Your task to perform on an android device: Open Google Chrome and open the bookmarks view Image 0: 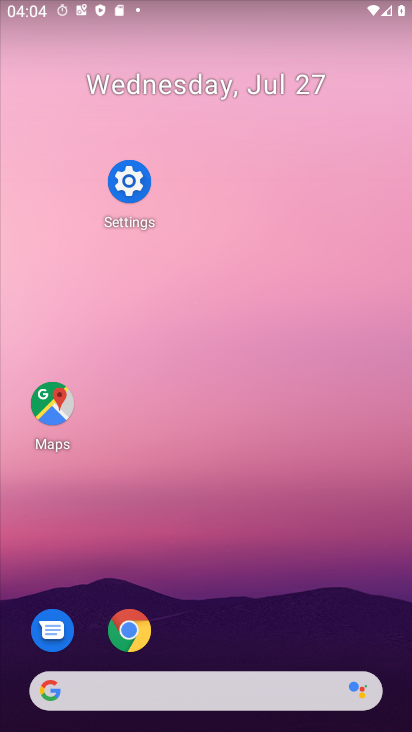
Step 0: drag from (172, 535) to (176, 116)
Your task to perform on an android device: Open Google Chrome and open the bookmarks view Image 1: 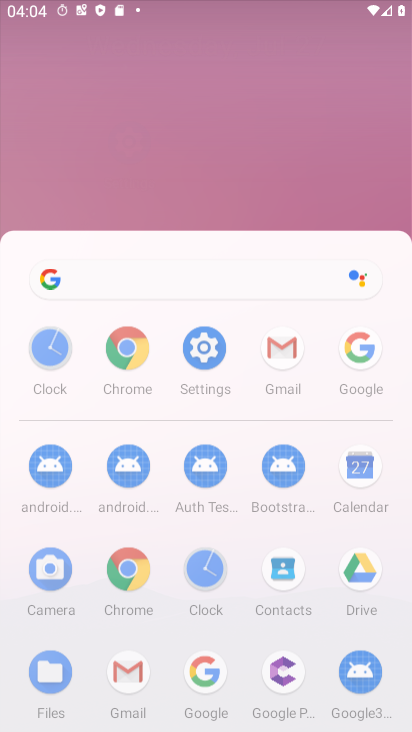
Step 1: drag from (204, 160) to (228, 135)
Your task to perform on an android device: Open Google Chrome and open the bookmarks view Image 2: 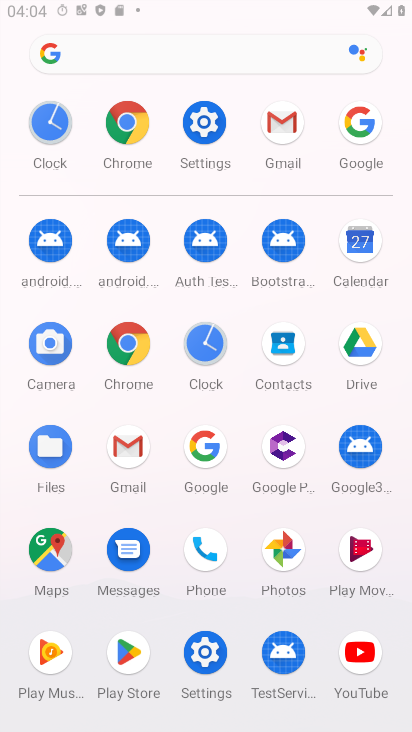
Step 2: drag from (196, 128) to (122, 107)
Your task to perform on an android device: Open Google Chrome and open the bookmarks view Image 3: 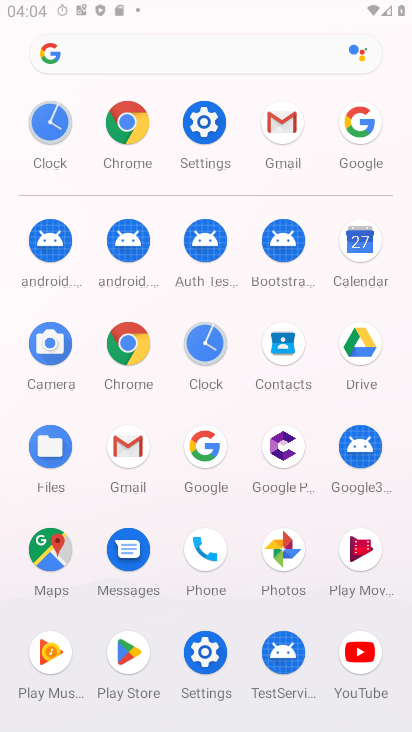
Step 3: drag from (227, 475) to (171, 59)
Your task to perform on an android device: Open Google Chrome and open the bookmarks view Image 4: 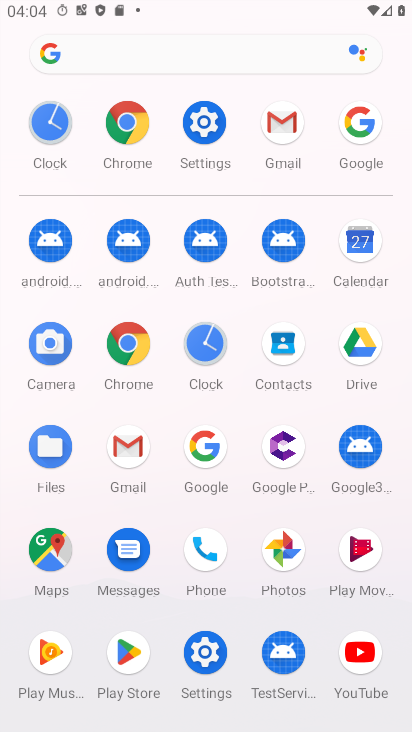
Step 4: click (126, 125)
Your task to perform on an android device: Open Google Chrome and open the bookmarks view Image 5: 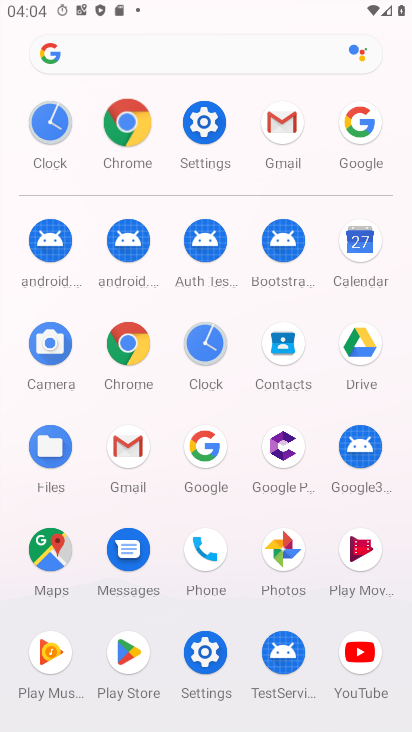
Step 5: click (126, 125)
Your task to perform on an android device: Open Google Chrome and open the bookmarks view Image 6: 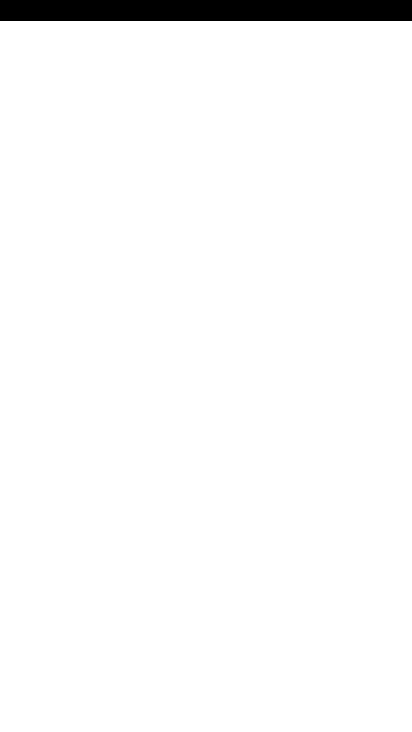
Step 6: click (126, 125)
Your task to perform on an android device: Open Google Chrome and open the bookmarks view Image 7: 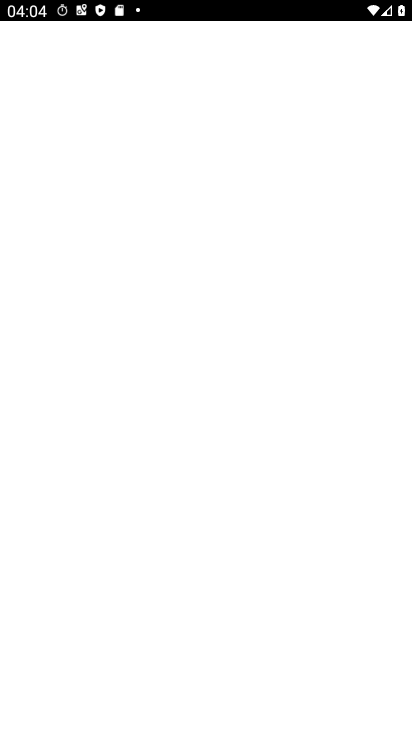
Step 7: click (125, 126)
Your task to perform on an android device: Open Google Chrome and open the bookmarks view Image 8: 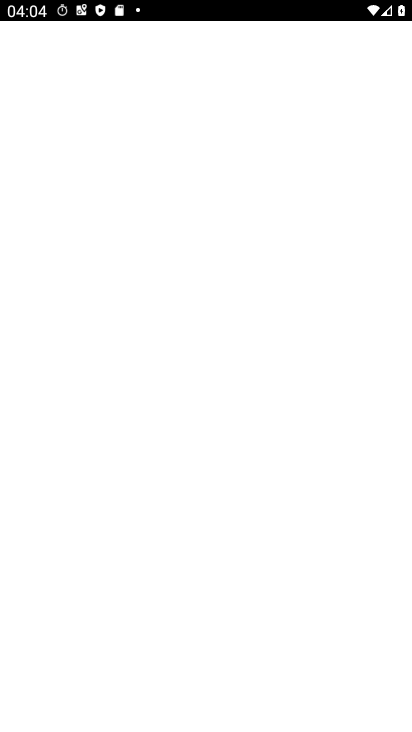
Step 8: click (126, 128)
Your task to perform on an android device: Open Google Chrome and open the bookmarks view Image 9: 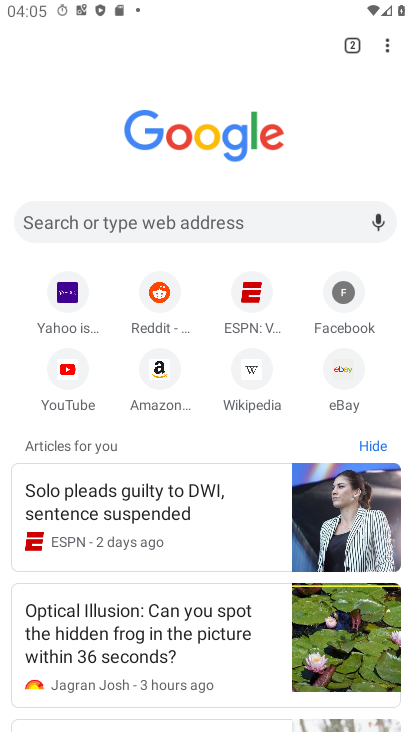
Step 9: drag from (385, 49) to (227, 163)
Your task to perform on an android device: Open Google Chrome and open the bookmarks view Image 10: 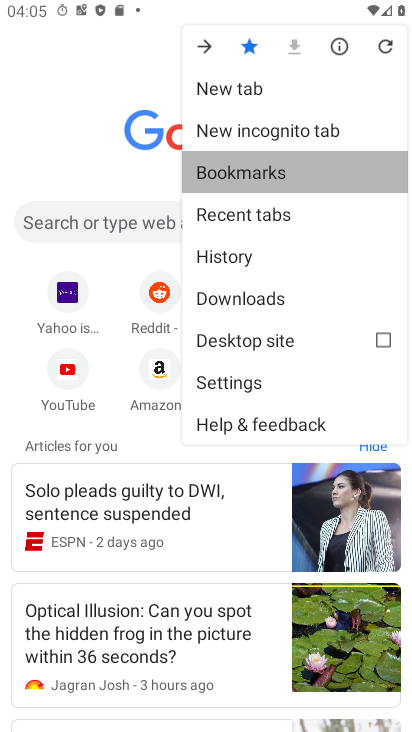
Step 10: click (228, 164)
Your task to perform on an android device: Open Google Chrome and open the bookmarks view Image 11: 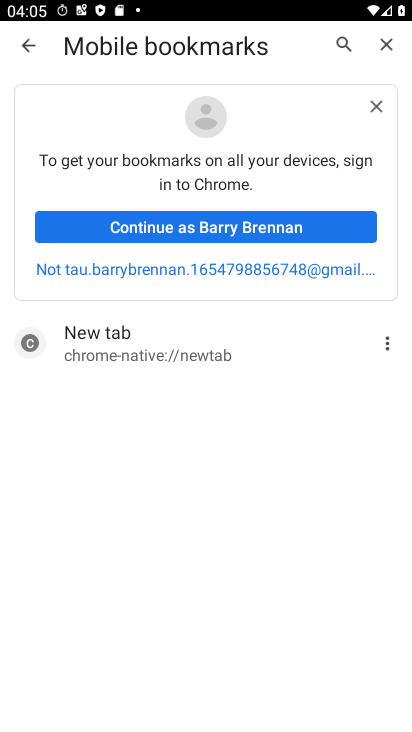
Step 11: task complete